Your task to perform on an android device: What is the recent news? Image 0: 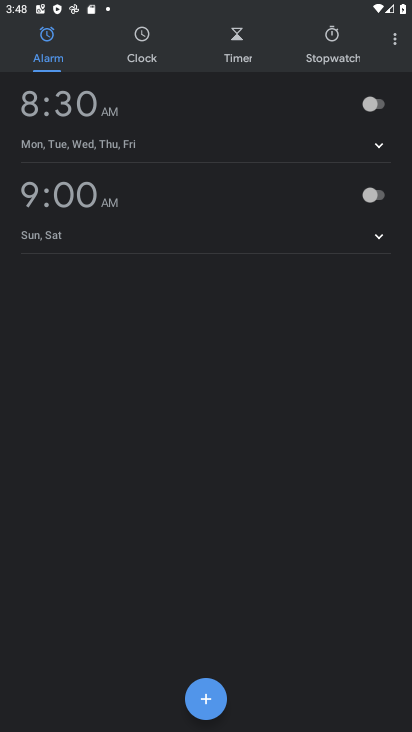
Step 0: press home button
Your task to perform on an android device: What is the recent news? Image 1: 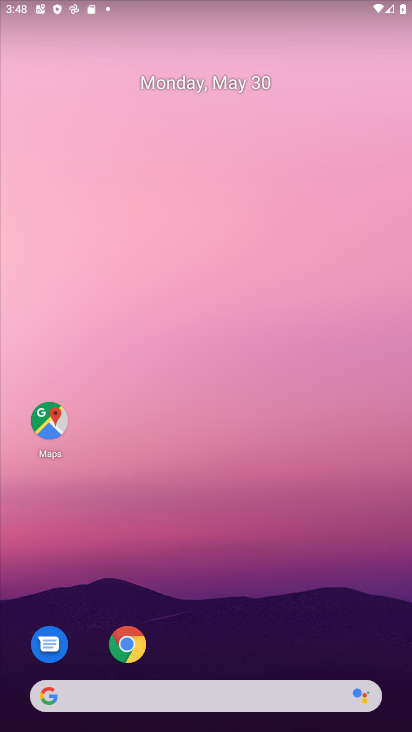
Step 1: drag from (235, 613) to (230, 474)
Your task to perform on an android device: What is the recent news? Image 2: 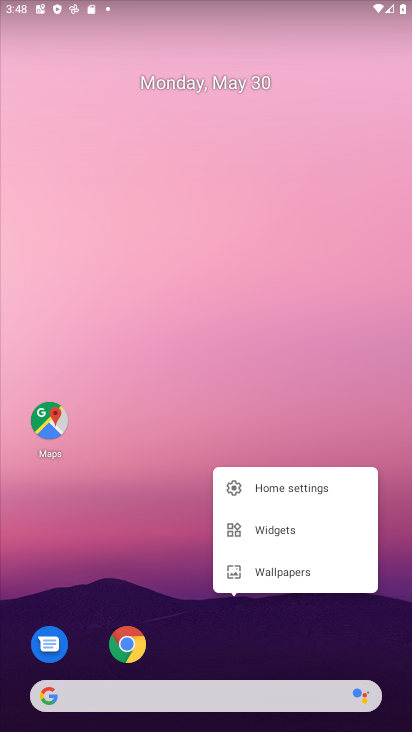
Step 2: click (78, 548)
Your task to perform on an android device: What is the recent news? Image 3: 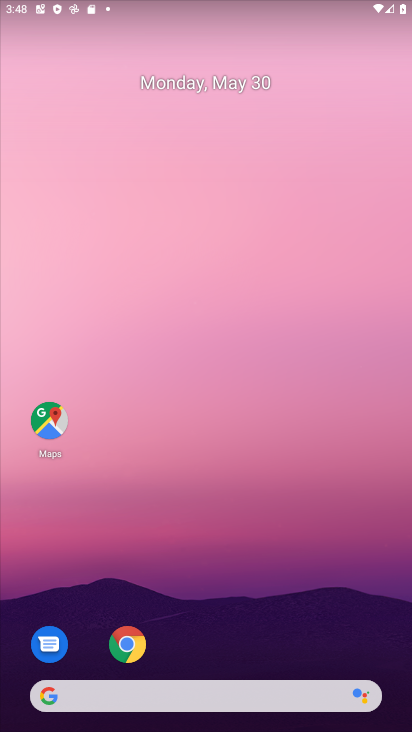
Step 3: click (173, 691)
Your task to perform on an android device: What is the recent news? Image 4: 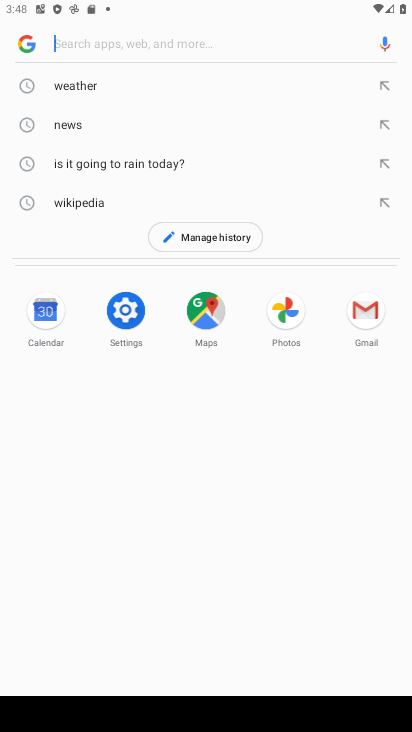
Step 4: click (109, 112)
Your task to perform on an android device: What is the recent news? Image 5: 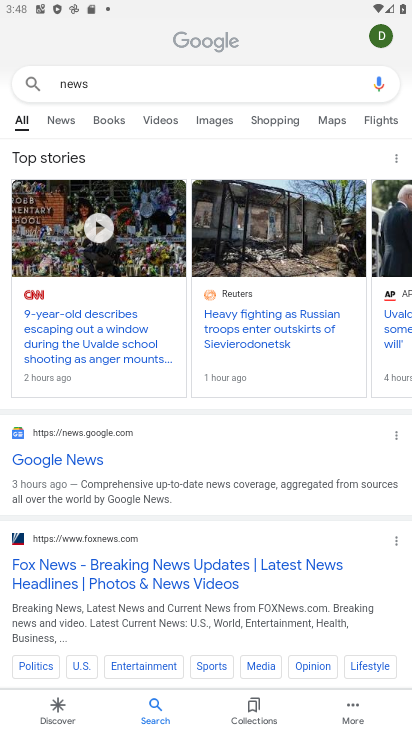
Step 5: task complete